Your task to perform on an android device: open app "YouTube Kids" (install if not already installed) Image 0: 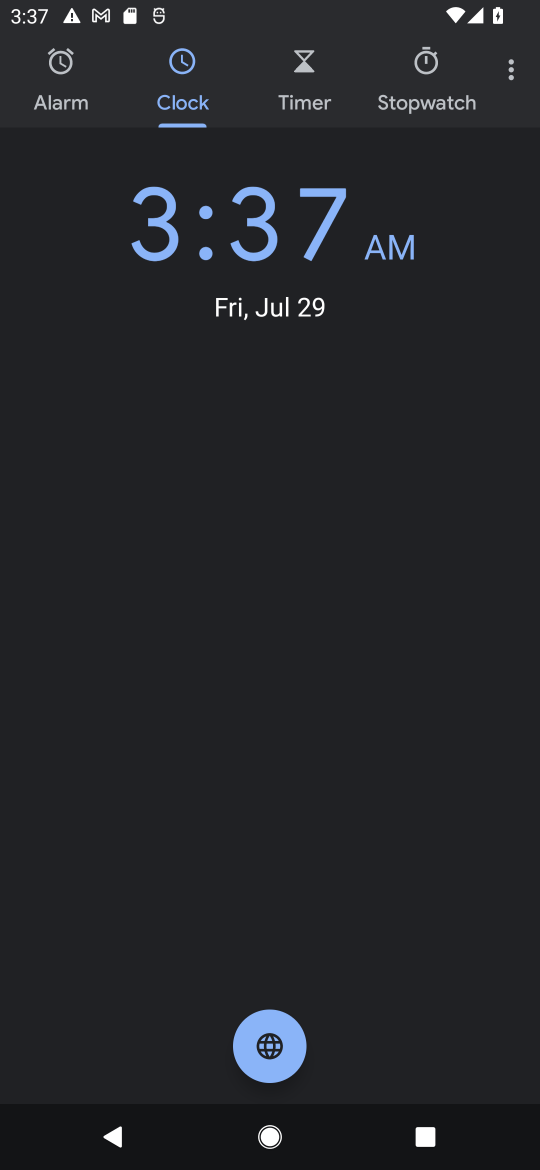
Step 0: press home button
Your task to perform on an android device: open app "YouTube Kids" (install if not already installed) Image 1: 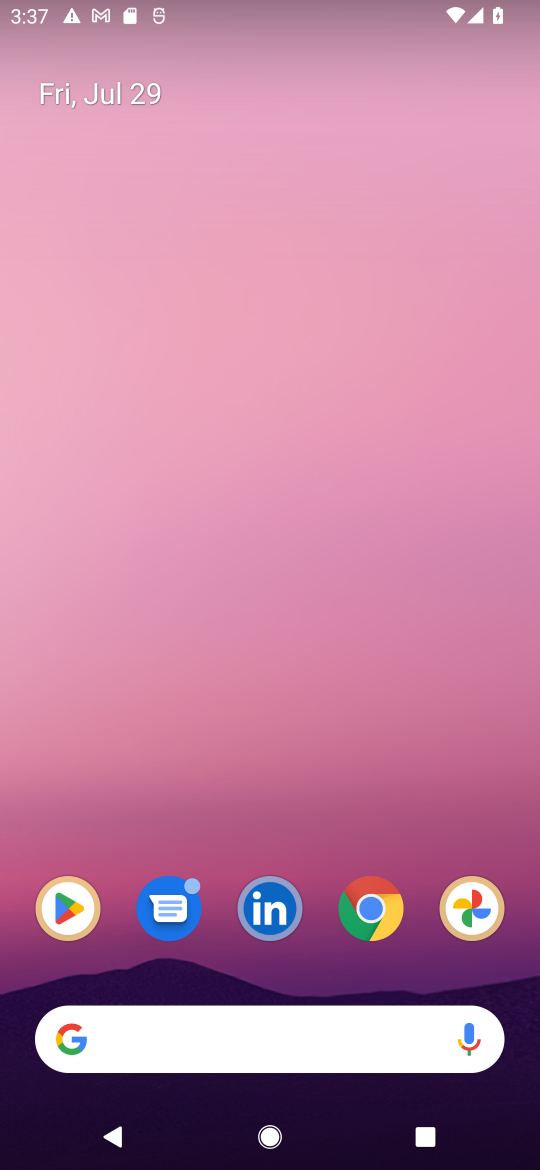
Step 1: click (61, 922)
Your task to perform on an android device: open app "YouTube Kids" (install if not already installed) Image 2: 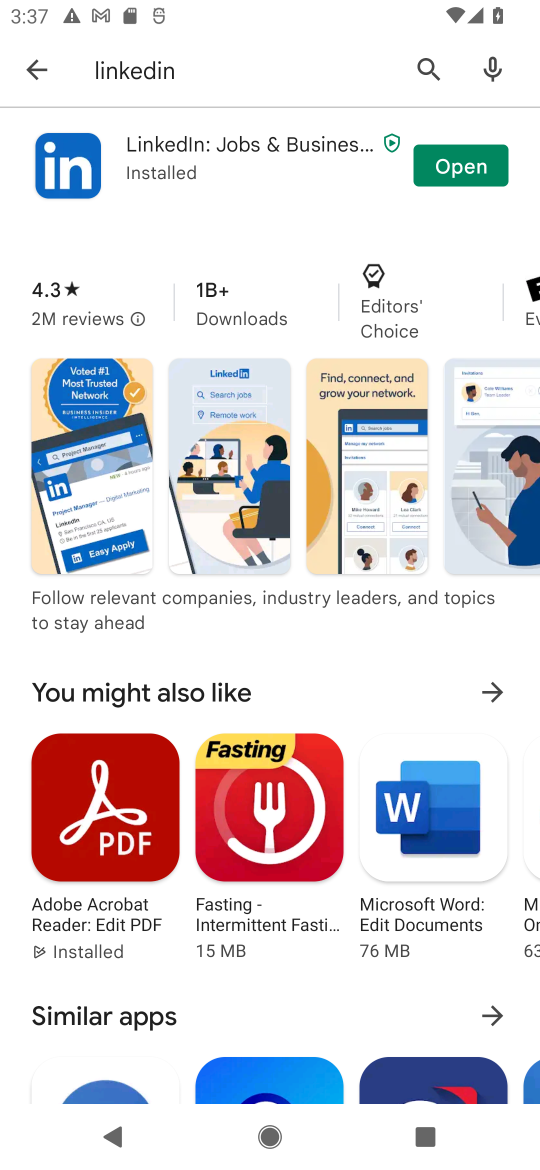
Step 2: click (422, 59)
Your task to perform on an android device: open app "YouTube Kids" (install if not already installed) Image 3: 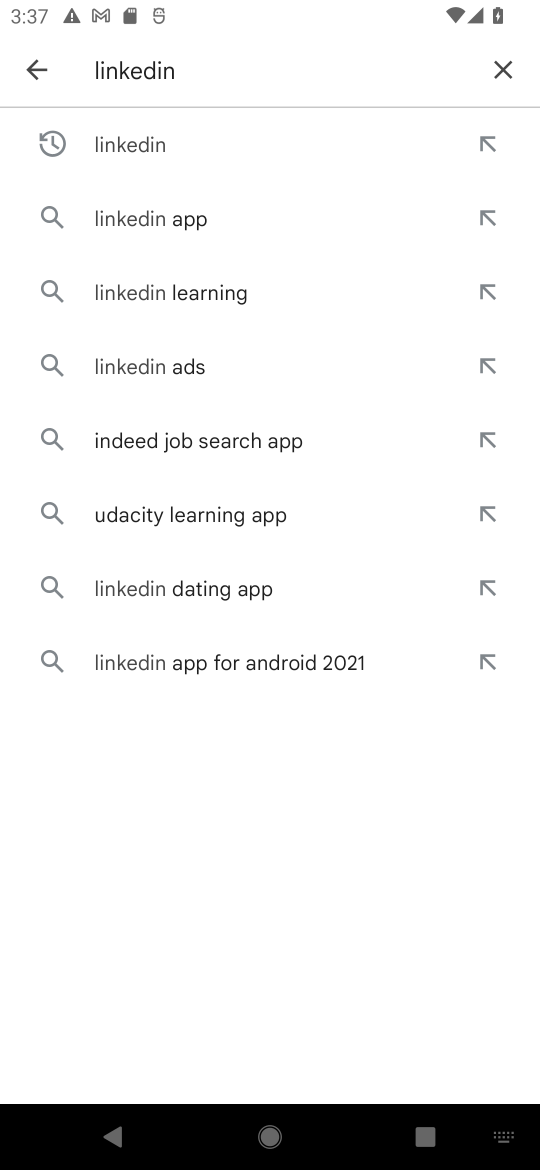
Step 3: click (506, 68)
Your task to perform on an android device: open app "YouTube Kids" (install if not already installed) Image 4: 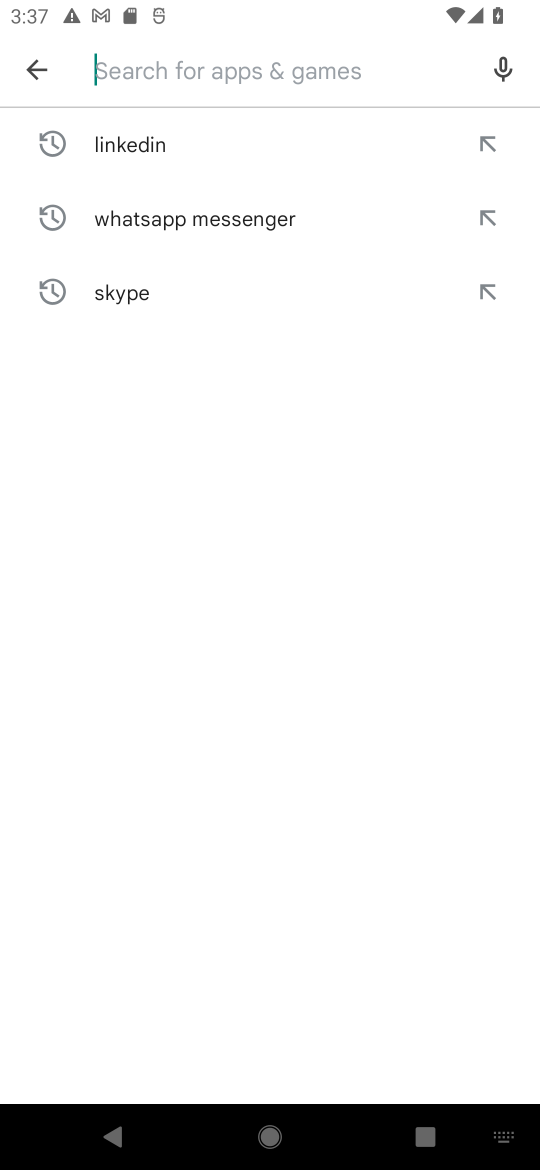
Step 4: type "Youtube Kids"
Your task to perform on an android device: open app "YouTube Kids" (install if not already installed) Image 5: 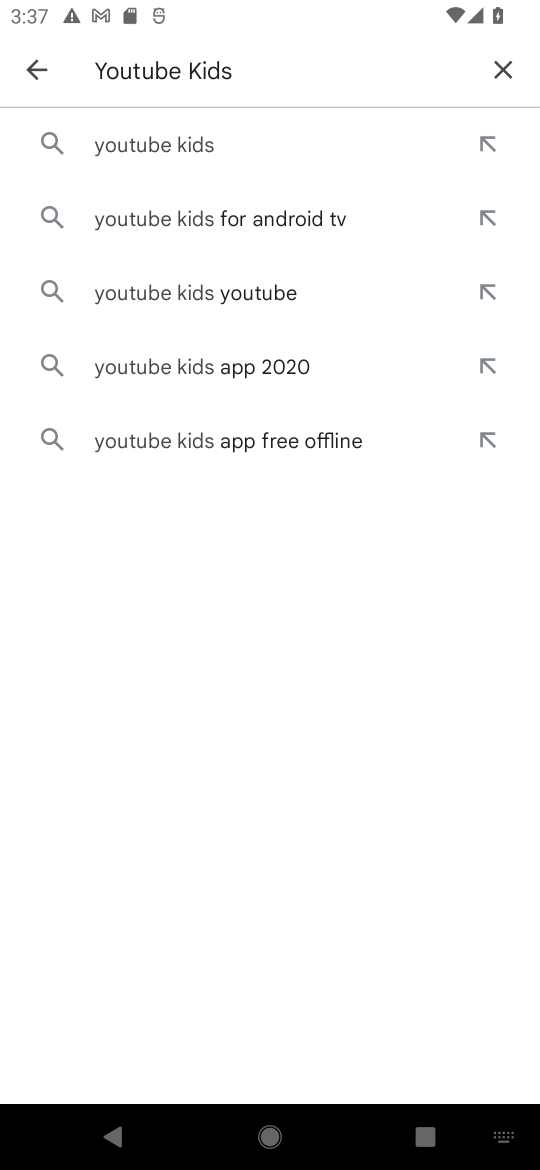
Step 5: click (269, 151)
Your task to perform on an android device: open app "YouTube Kids" (install if not already installed) Image 6: 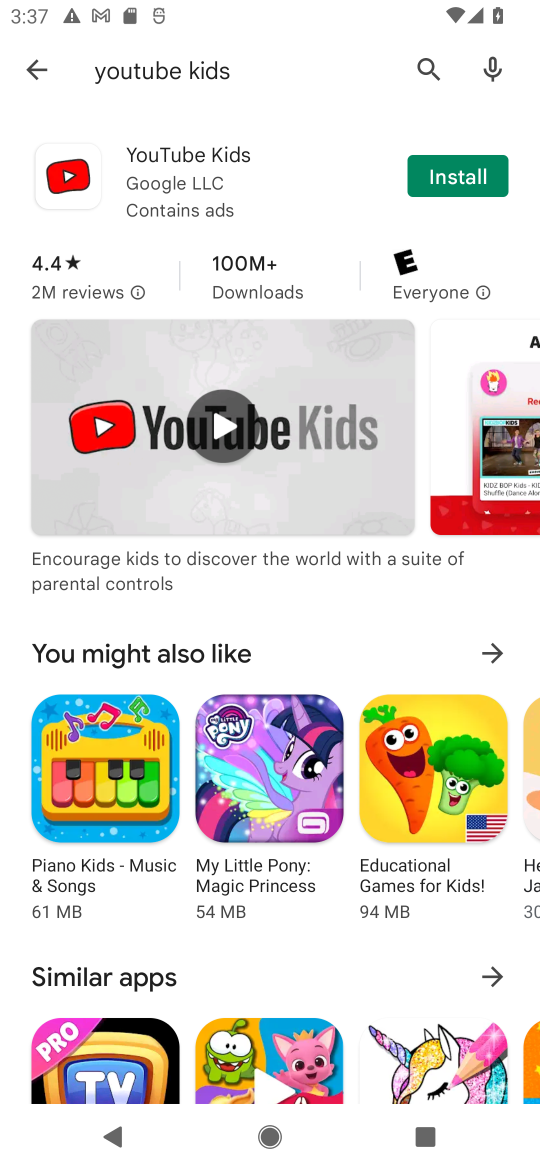
Step 6: click (444, 167)
Your task to perform on an android device: open app "YouTube Kids" (install if not already installed) Image 7: 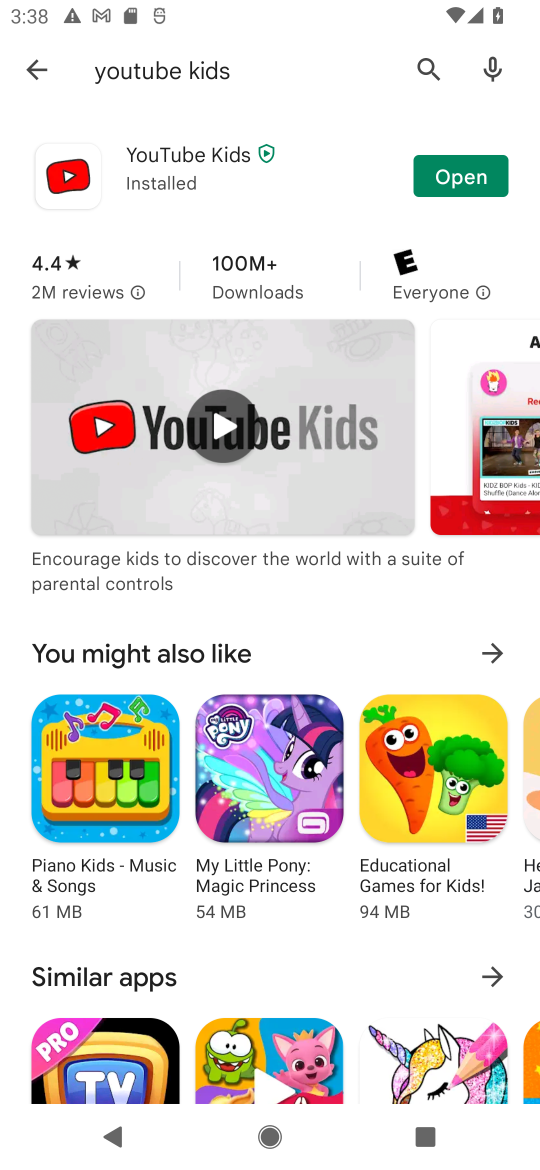
Step 7: click (471, 175)
Your task to perform on an android device: open app "YouTube Kids" (install if not already installed) Image 8: 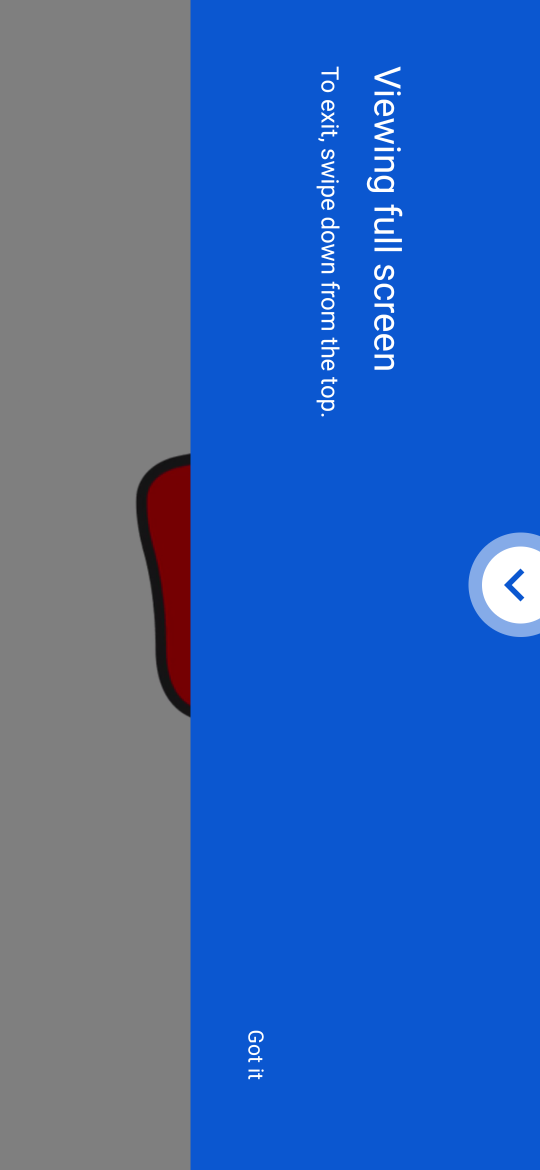
Step 8: click (260, 1086)
Your task to perform on an android device: open app "YouTube Kids" (install if not already installed) Image 9: 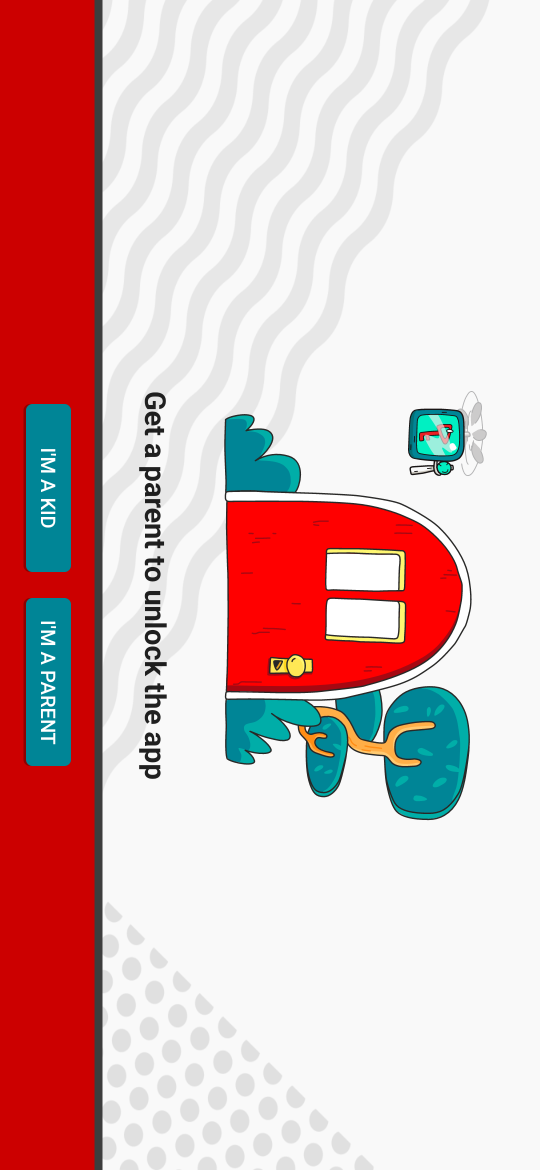
Step 9: task complete